Your task to perform on an android device: Go to Google Image 0: 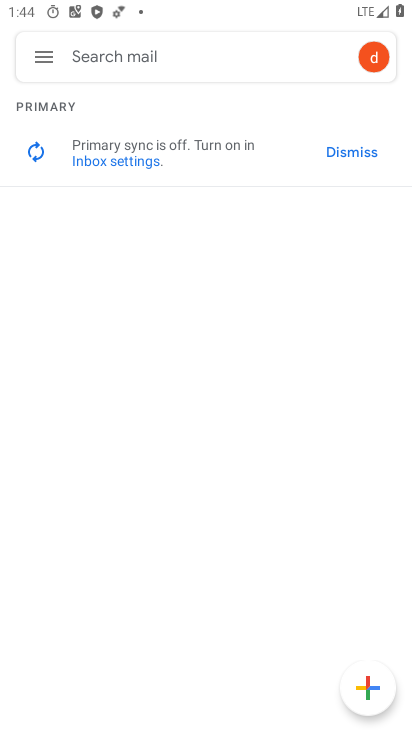
Step 0: press home button
Your task to perform on an android device: Go to Google Image 1: 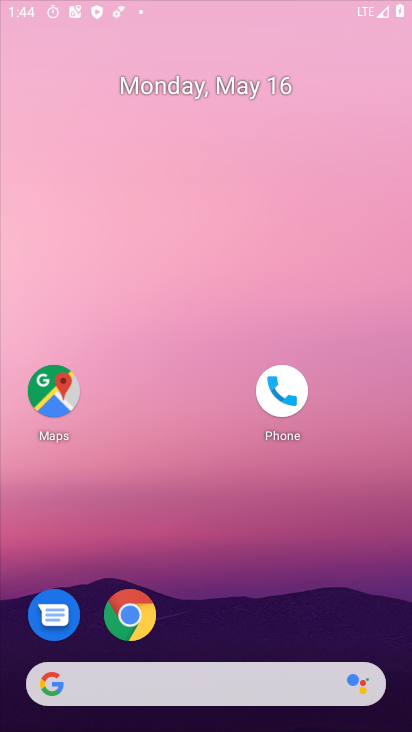
Step 1: drag from (197, 639) to (262, 100)
Your task to perform on an android device: Go to Google Image 2: 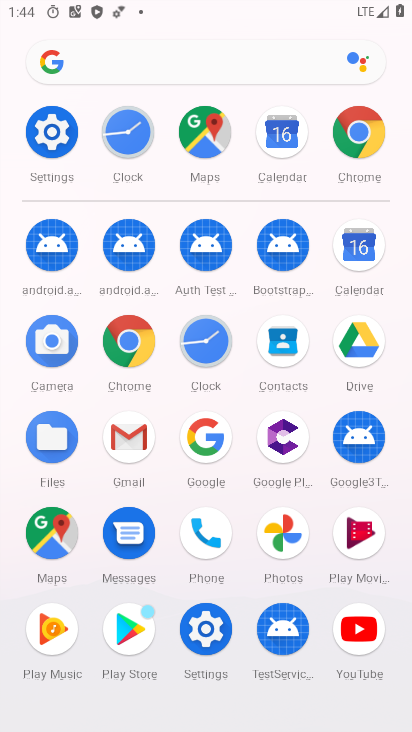
Step 2: click (128, 339)
Your task to perform on an android device: Go to Google Image 3: 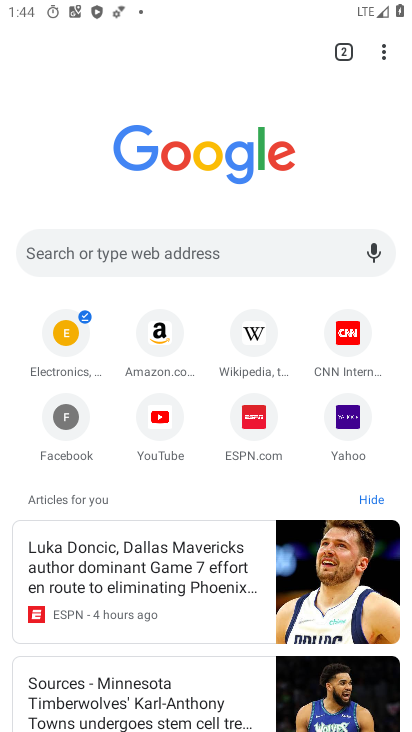
Step 3: task complete